Your task to perform on an android device: find snoozed emails in the gmail app Image 0: 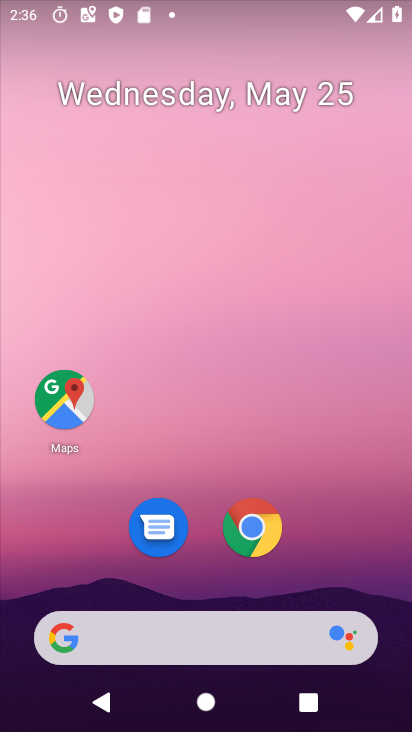
Step 0: drag from (296, 150) to (323, 53)
Your task to perform on an android device: find snoozed emails in the gmail app Image 1: 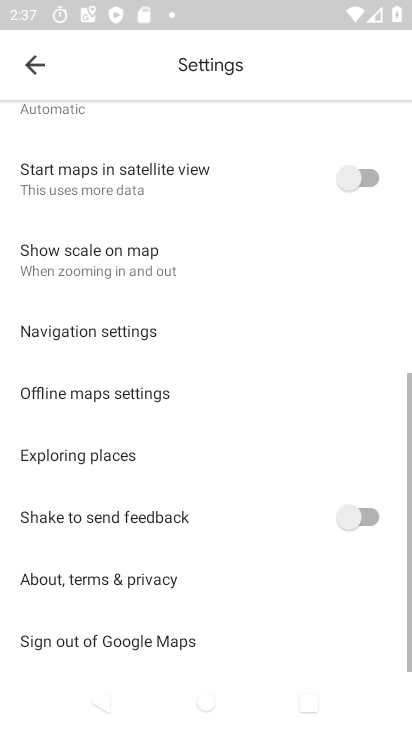
Step 1: press home button
Your task to perform on an android device: find snoozed emails in the gmail app Image 2: 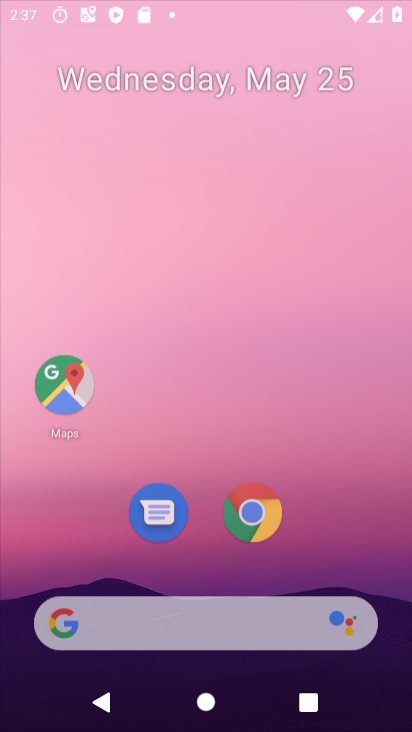
Step 2: drag from (156, 625) to (243, 22)
Your task to perform on an android device: find snoozed emails in the gmail app Image 3: 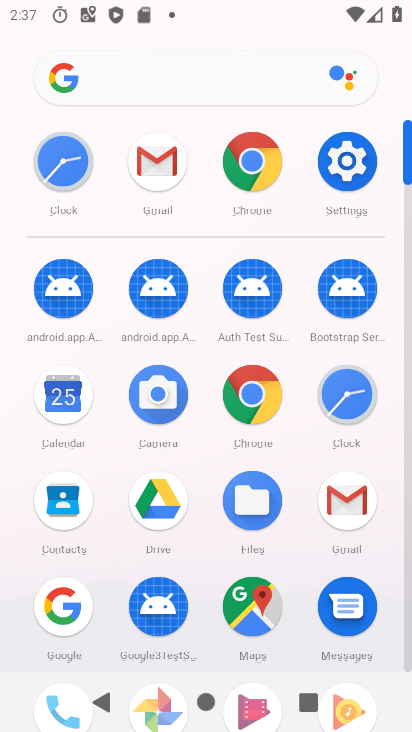
Step 3: click (331, 489)
Your task to perform on an android device: find snoozed emails in the gmail app Image 4: 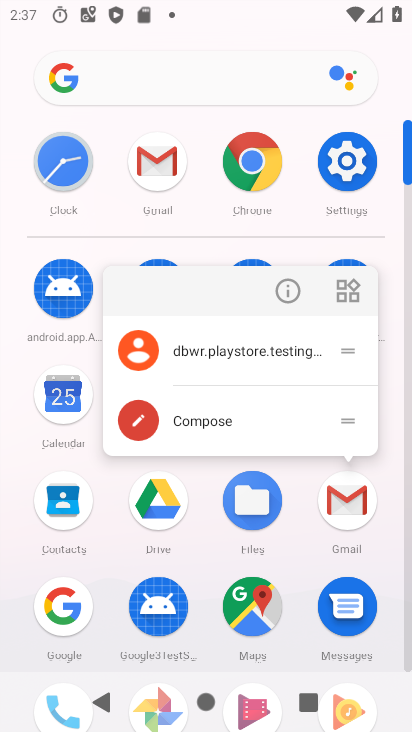
Step 4: click (287, 299)
Your task to perform on an android device: find snoozed emails in the gmail app Image 5: 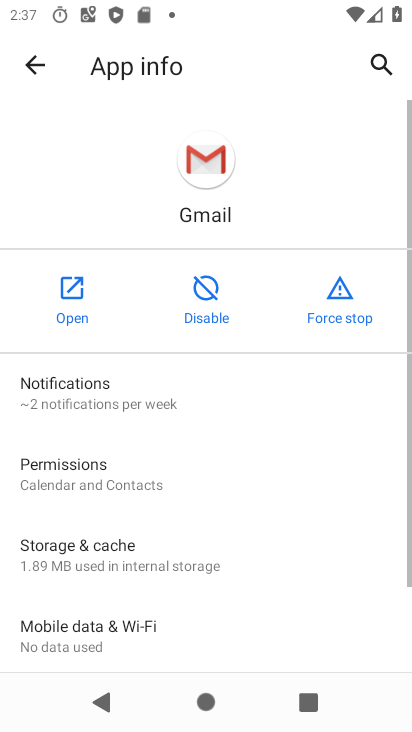
Step 5: click (69, 300)
Your task to perform on an android device: find snoozed emails in the gmail app Image 6: 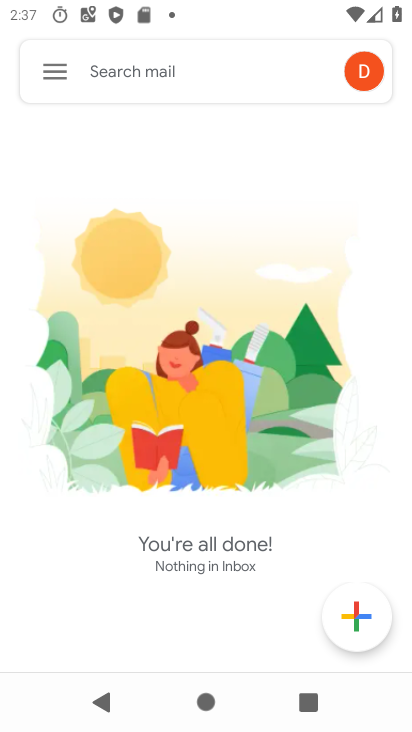
Step 6: click (54, 65)
Your task to perform on an android device: find snoozed emails in the gmail app Image 7: 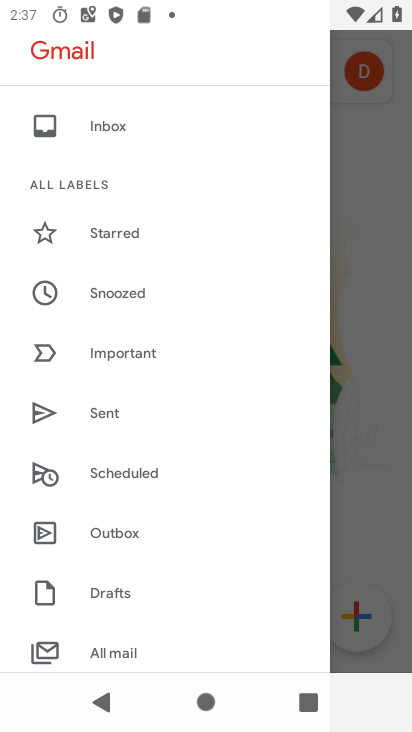
Step 7: click (139, 293)
Your task to perform on an android device: find snoozed emails in the gmail app Image 8: 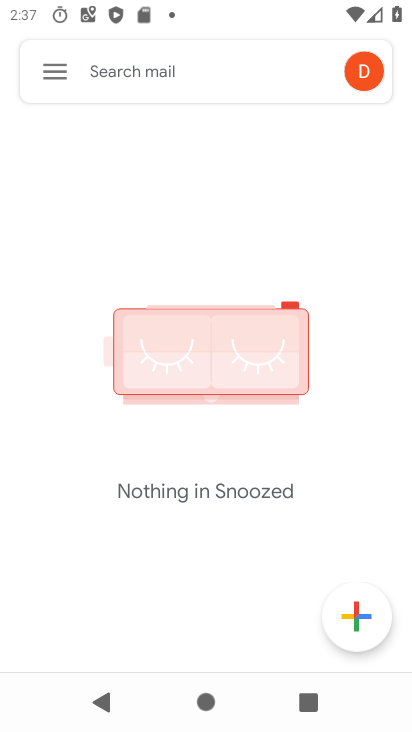
Step 8: task complete